Your task to perform on an android device: Open Amazon Image 0: 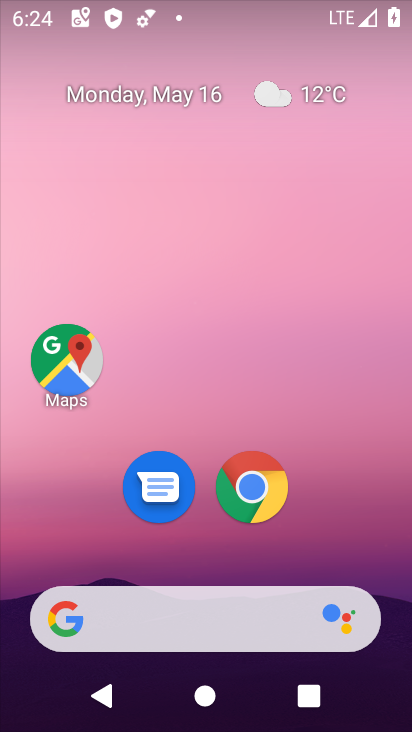
Step 0: click (248, 479)
Your task to perform on an android device: Open Amazon Image 1: 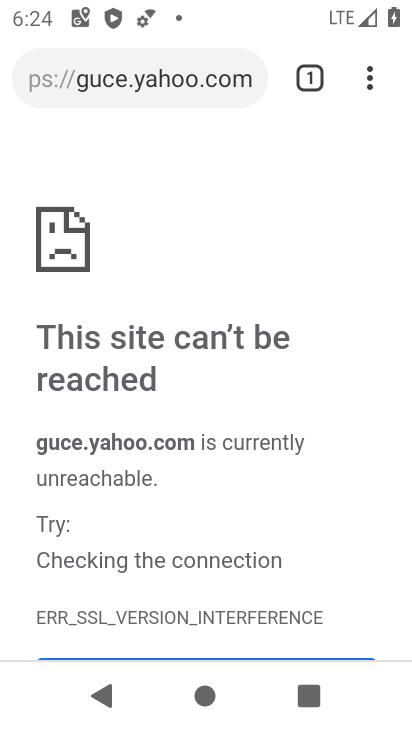
Step 1: click (244, 89)
Your task to perform on an android device: Open Amazon Image 2: 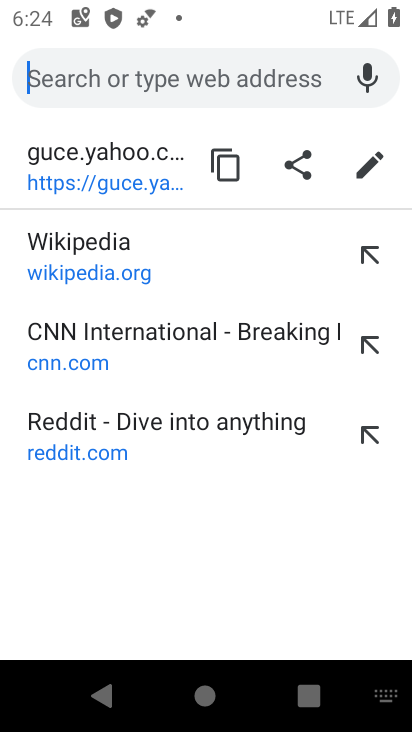
Step 2: type "amazon"
Your task to perform on an android device: Open Amazon Image 3: 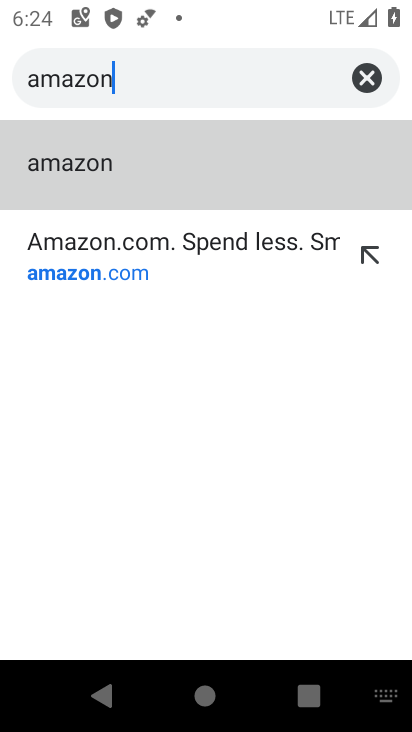
Step 3: click (81, 274)
Your task to perform on an android device: Open Amazon Image 4: 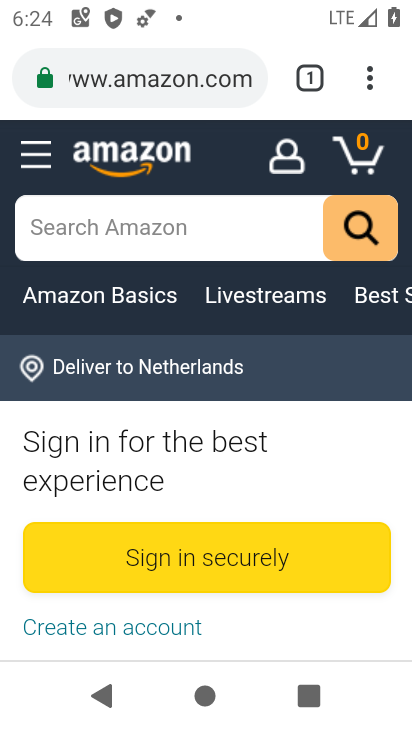
Step 4: task complete